Your task to perform on an android device: open wifi settings Image 0: 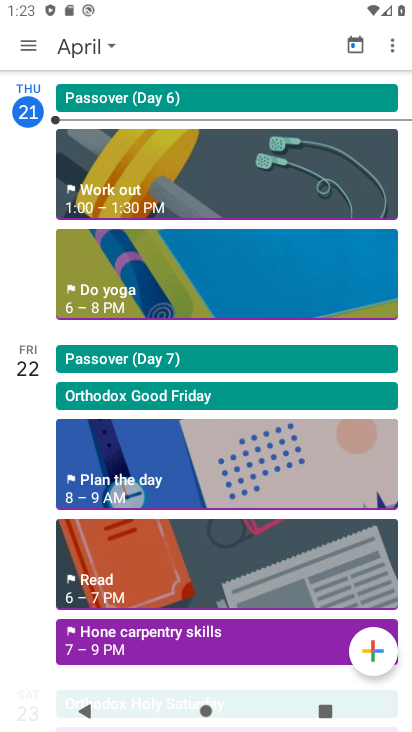
Step 0: press home button
Your task to perform on an android device: open wifi settings Image 1: 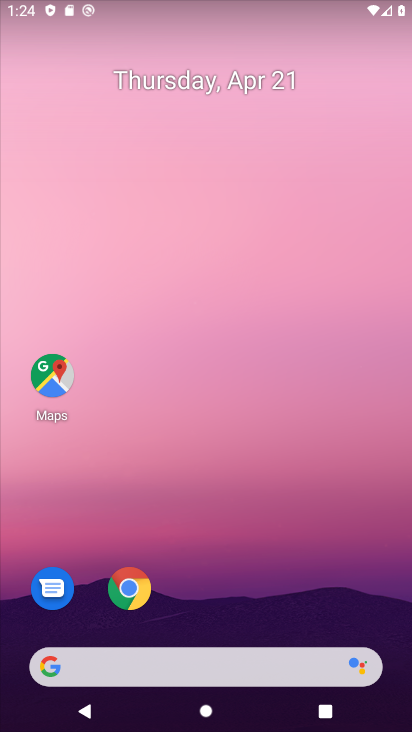
Step 1: drag from (290, 592) to (283, 291)
Your task to perform on an android device: open wifi settings Image 2: 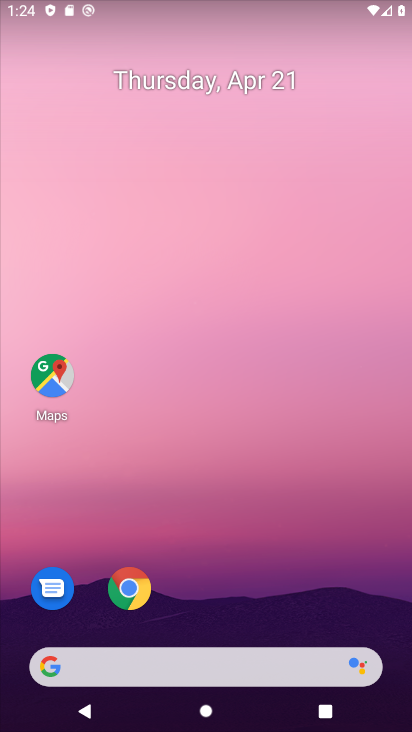
Step 2: drag from (205, 591) to (192, 117)
Your task to perform on an android device: open wifi settings Image 3: 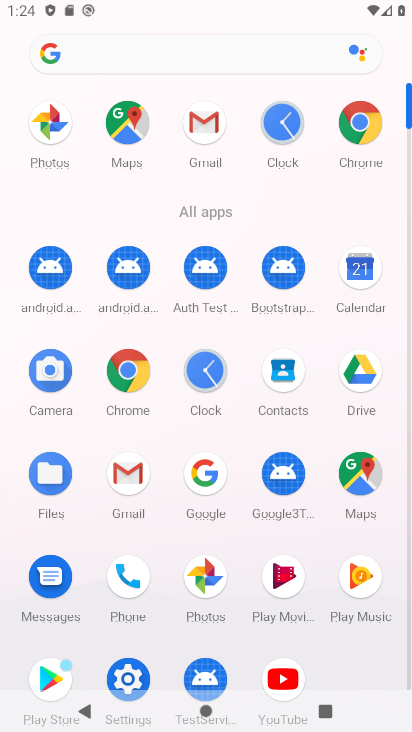
Step 3: drag from (346, 662) to (324, 476)
Your task to perform on an android device: open wifi settings Image 4: 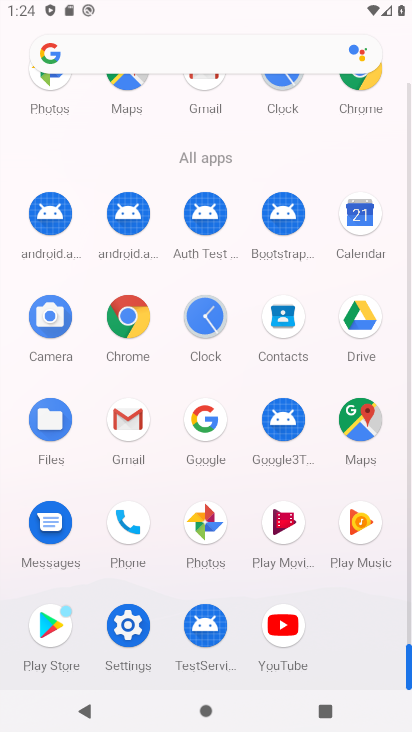
Step 4: click (136, 620)
Your task to perform on an android device: open wifi settings Image 5: 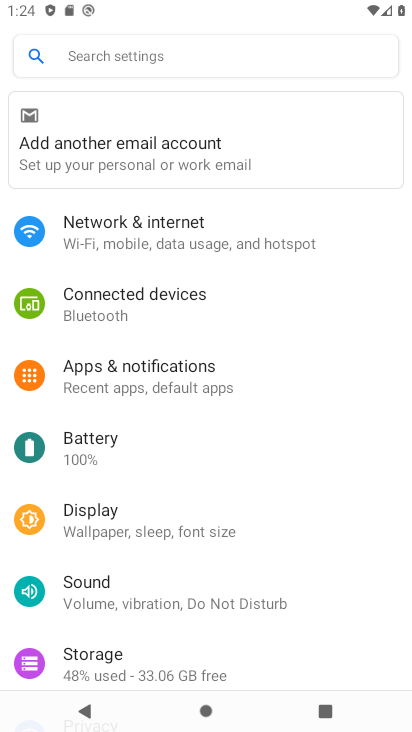
Step 5: click (201, 226)
Your task to perform on an android device: open wifi settings Image 6: 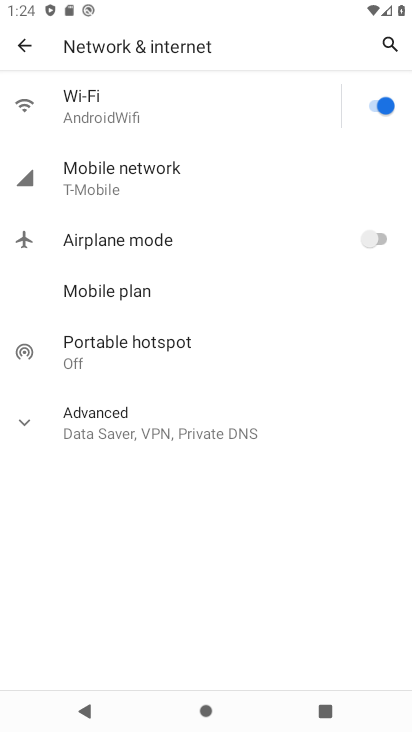
Step 6: click (162, 112)
Your task to perform on an android device: open wifi settings Image 7: 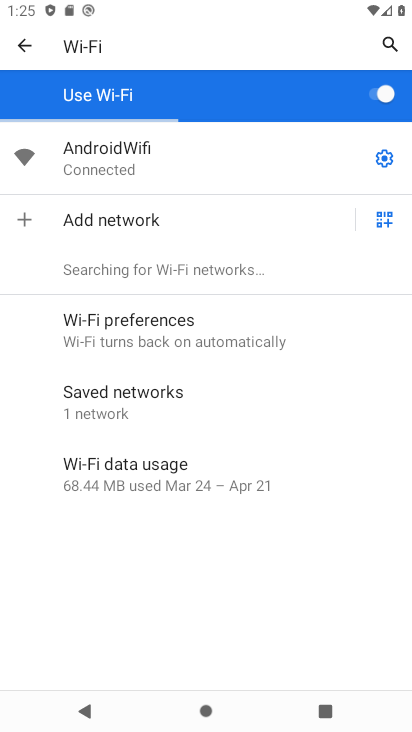
Step 7: task complete